Your task to perform on an android device: Open the Play Movies app and select the watchlist tab. Image 0: 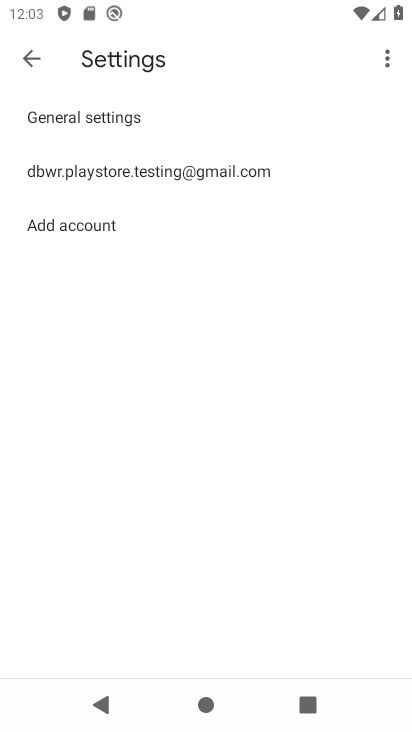
Step 0: press home button
Your task to perform on an android device: Open the Play Movies app and select the watchlist tab. Image 1: 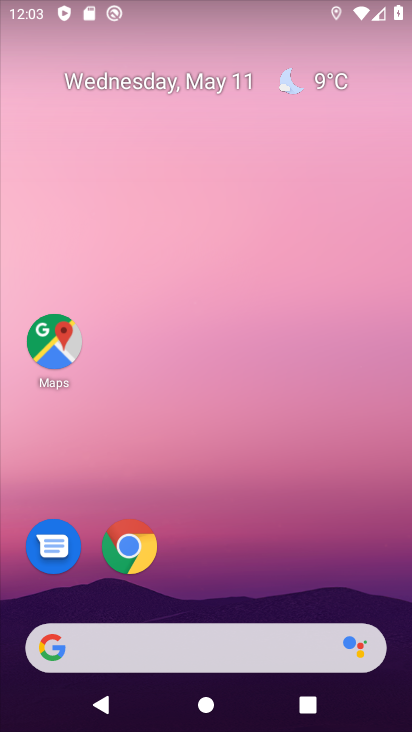
Step 1: drag from (193, 655) to (313, 103)
Your task to perform on an android device: Open the Play Movies app and select the watchlist tab. Image 2: 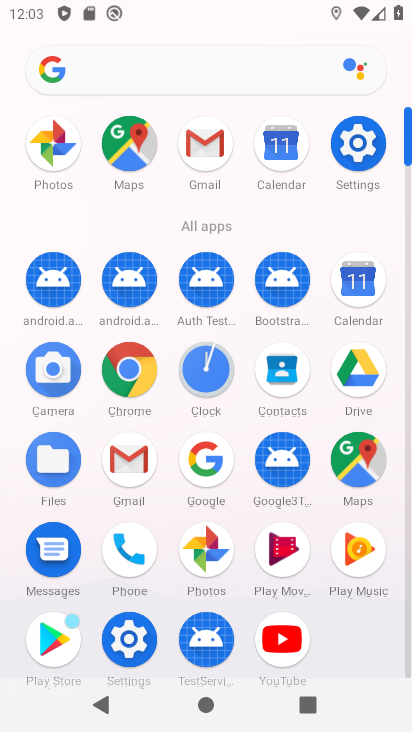
Step 2: click (279, 562)
Your task to perform on an android device: Open the Play Movies app and select the watchlist tab. Image 3: 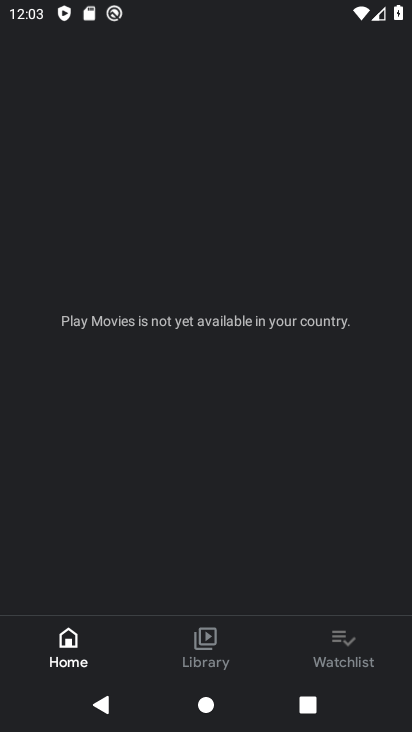
Step 3: click (335, 659)
Your task to perform on an android device: Open the Play Movies app and select the watchlist tab. Image 4: 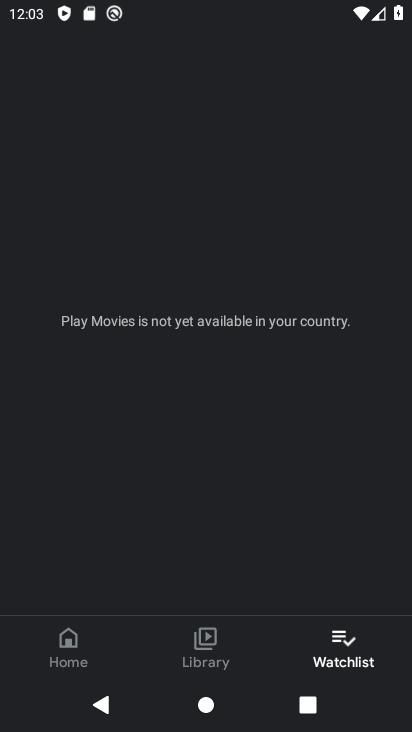
Step 4: task complete